Your task to perform on an android device: Search for pizza restaurants on Maps Image 0: 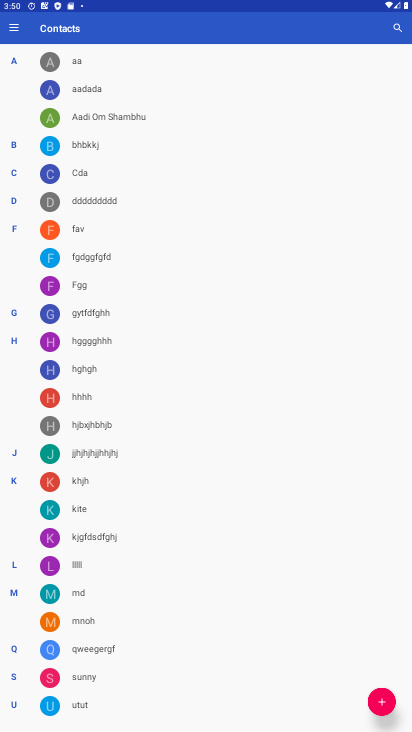
Step 0: press home button
Your task to perform on an android device: Search for pizza restaurants on Maps Image 1: 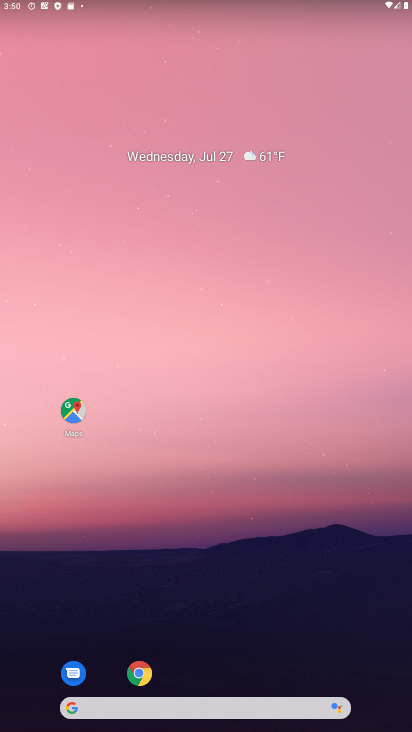
Step 1: click (75, 411)
Your task to perform on an android device: Search for pizza restaurants on Maps Image 2: 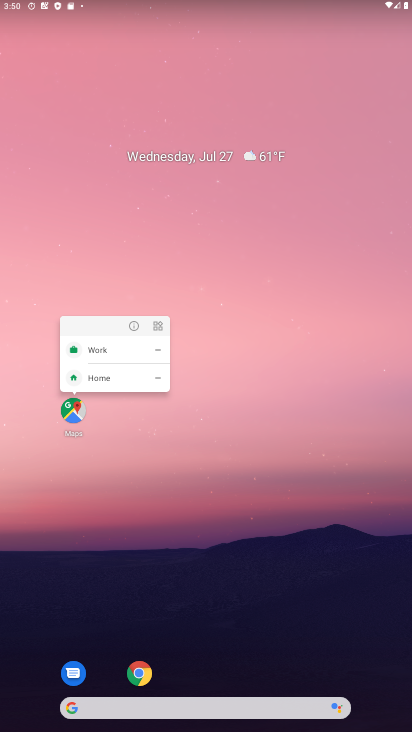
Step 2: click (63, 413)
Your task to perform on an android device: Search for pizza restaurants on Maps Image 3: 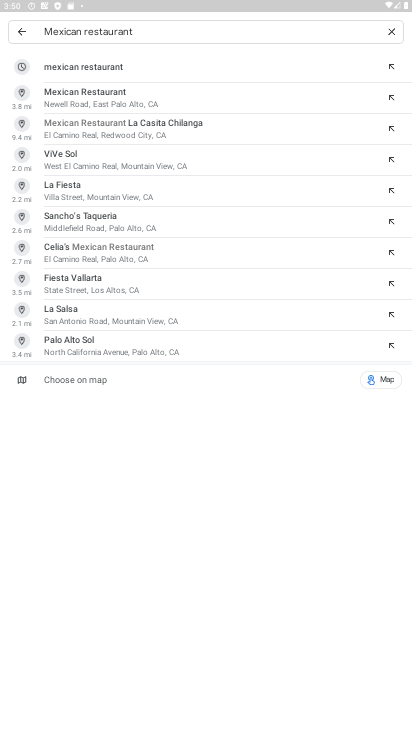
Step 3: click (17, 30)
Your task to perform on an android device: Search for pizza restaurants on Maps Image 4: 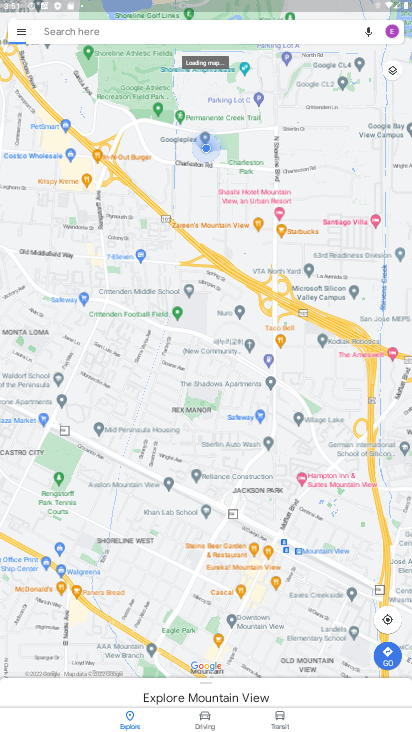
Step 4: click (82, 38)
Your task to perform on an android device: Search for pizza restaurants on Maps Image 5: 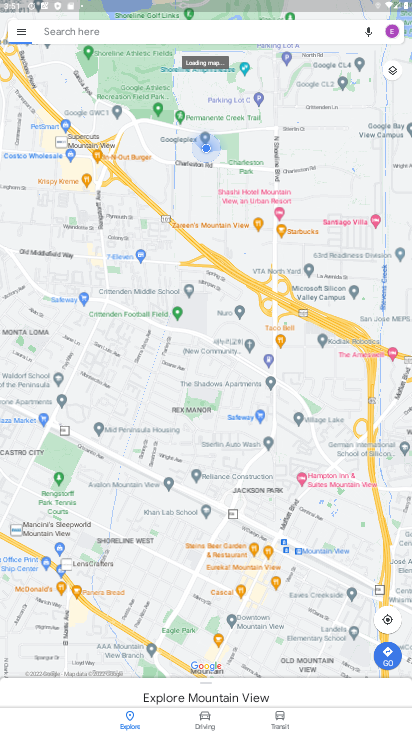
Step 5: click (79, 30)
Your task to perform on an android device: Search for pizza restaurants on Maps Image 6: 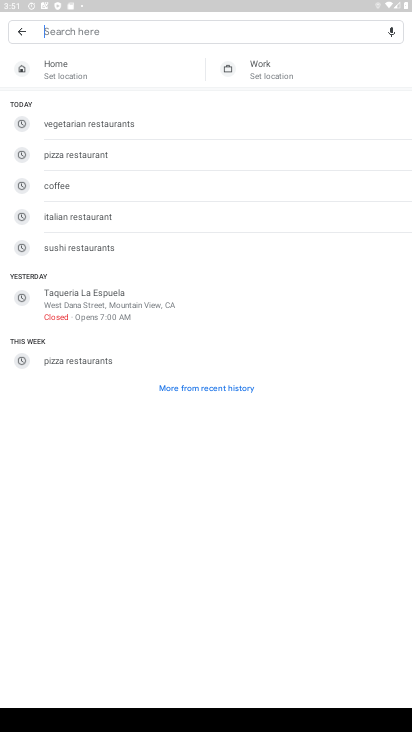
Step 6: type "pizza restaurants "
Your task to perform on an android device: Search for pizza restaurants on Maps Image 7: 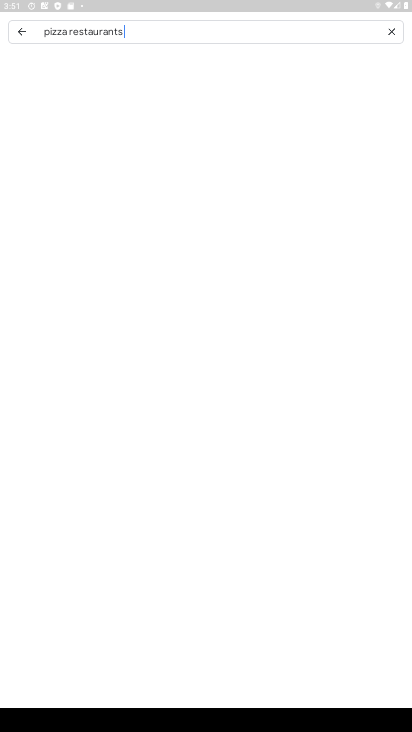
Step 7: type ""
Your task to perform on an android device: Search for pizza restaurants on Maps Image 8: 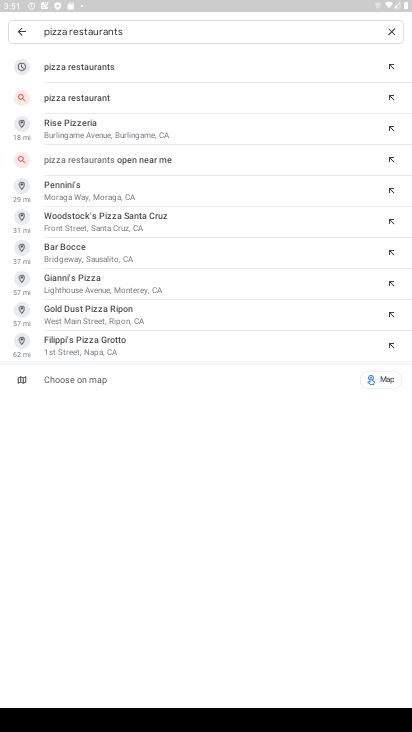
Step 8: click (71, 68)
Your task to perform on an android device: Search for pizza restaurants on Maps Image 9: 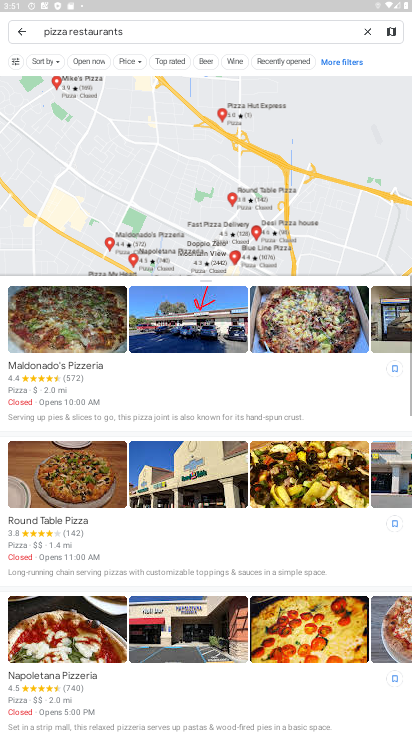
Step 9: task complete